Your task to perform on an android device: Open Chrome and go to settings Image 0: 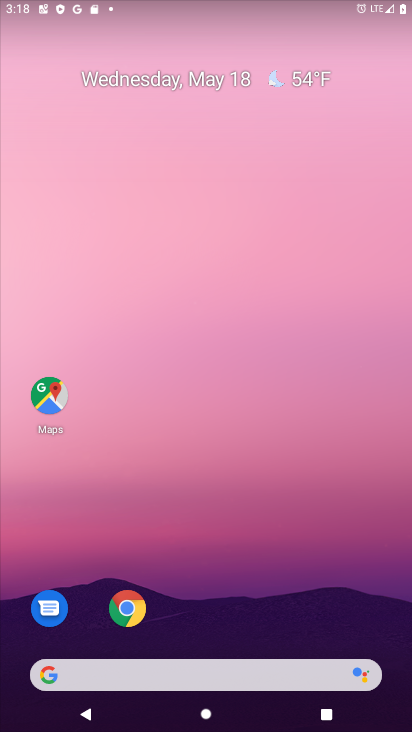
Step 0: click (135, 615)
Your task to perform on an android device: Open Chrome and go to settings Image 1: 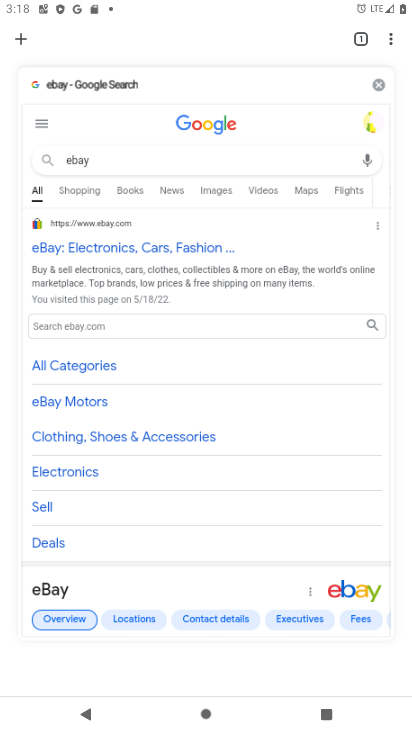
Step 1: click (390, 37)
Your task to perform on an android device: Open Chrome and go to settings Image 2: 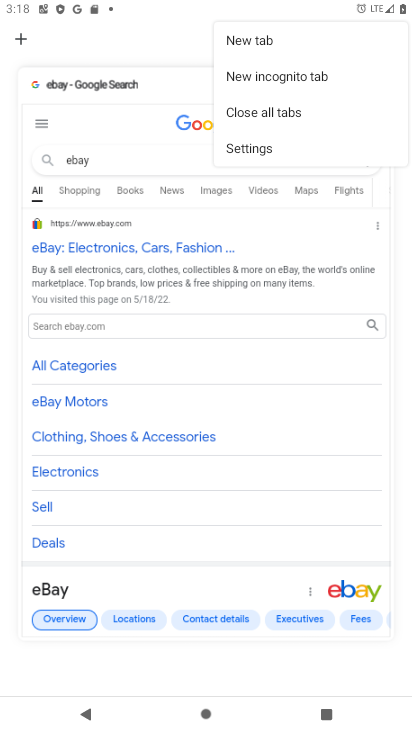
Step 2: click (271, 155)
Your task to perform on an android device: Open Chrome and go to settings Image 3: 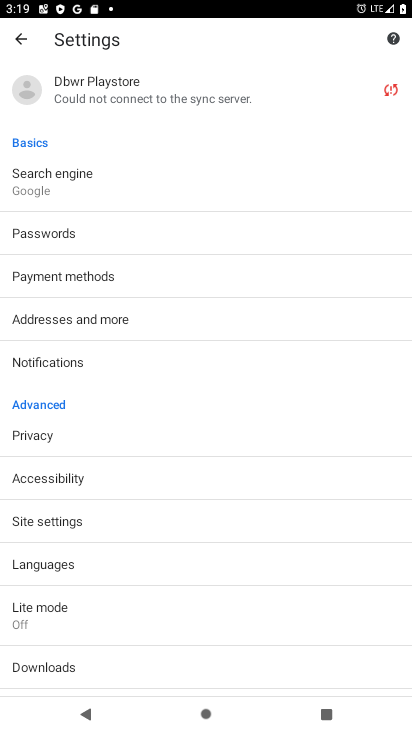
Step 3: task complete